Your task to perform on an android device: Toggle the flashlight Image 0: 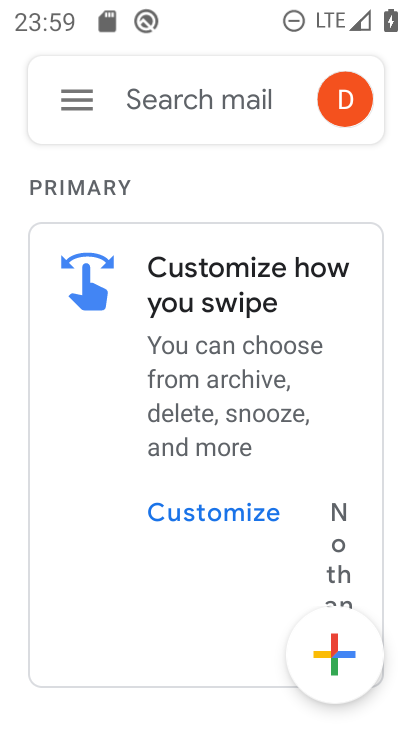
Step 0: press home button
Your task to perform on an android device: Toggle the flashlight Image 1: 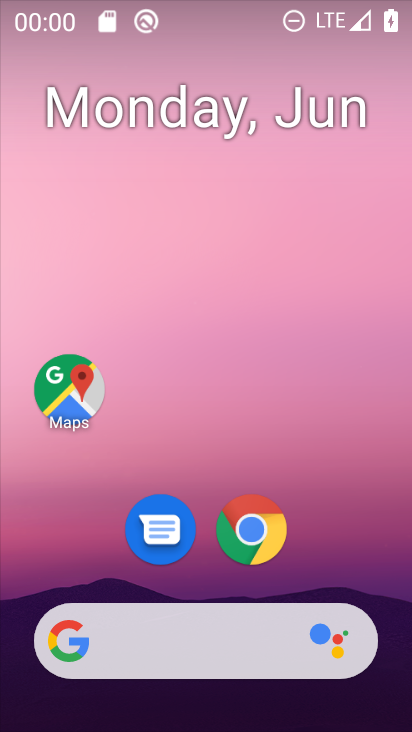
Step 1: drag from (228, 6) to (217, 479)
Your task to perform on an android device: Toggle the flashlight Image 2: 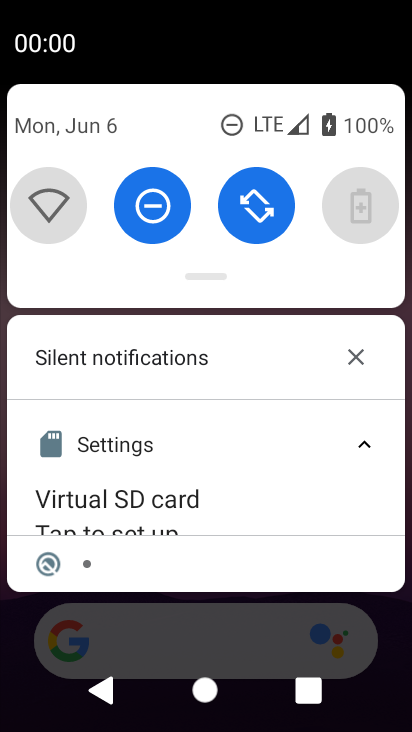
Step 2: drag from (210, 274) to (202, 577)
Your task to perform on an android device: Toggle the flashlight Image 3: 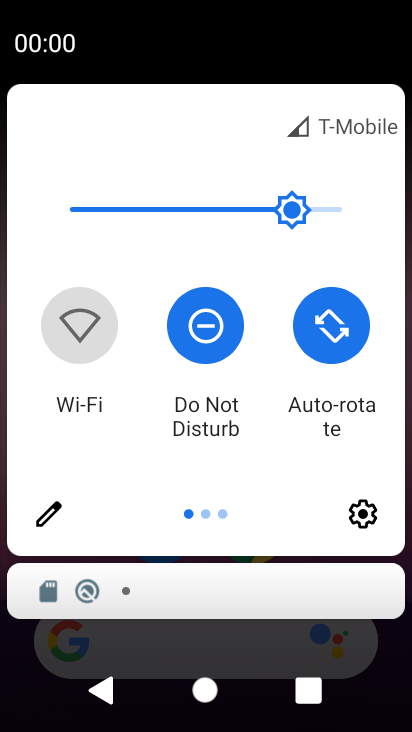
Step 3: click (47, 509)
Your task to perform on an android device: Toggle the flashlight Image 4: 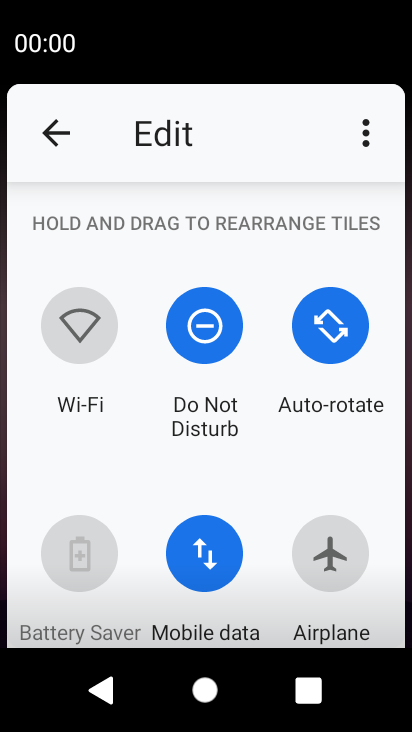
Step 4: task complete